Your task to perform on an android device: Toggle the flashlight Image 0: 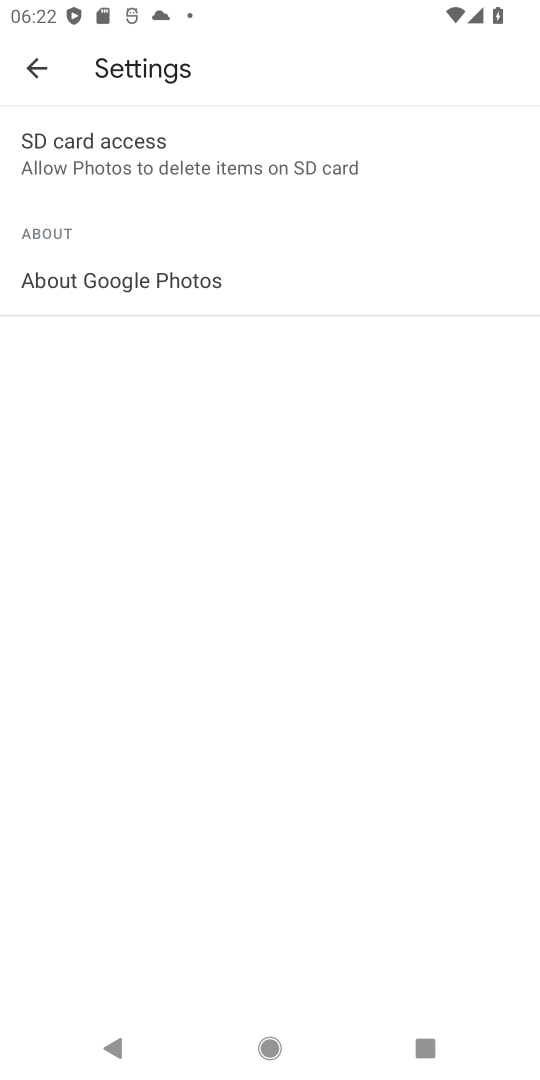
Step 0: press home button
Your task to perform on an android device: Toggle the flashlight Image 1: 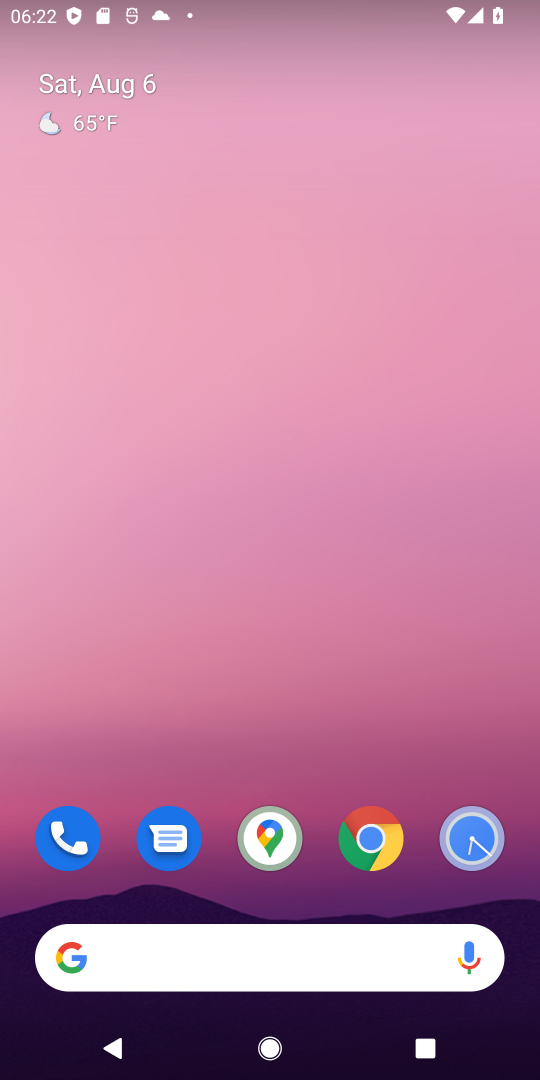
Step 1: drag from (351, 694) to (477, 34)
Your task to perform on an android device: Toggle the flashlight Image 2: 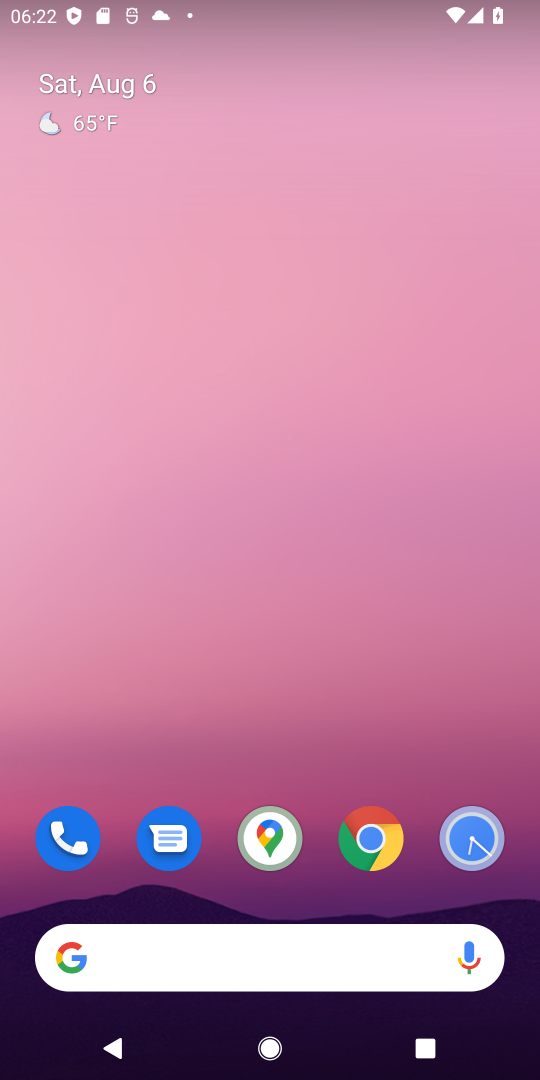
Step 2: drag from (274, 708) to (464, 1)
Your task to perform on an android device: Toggle the flashlight Image 3: 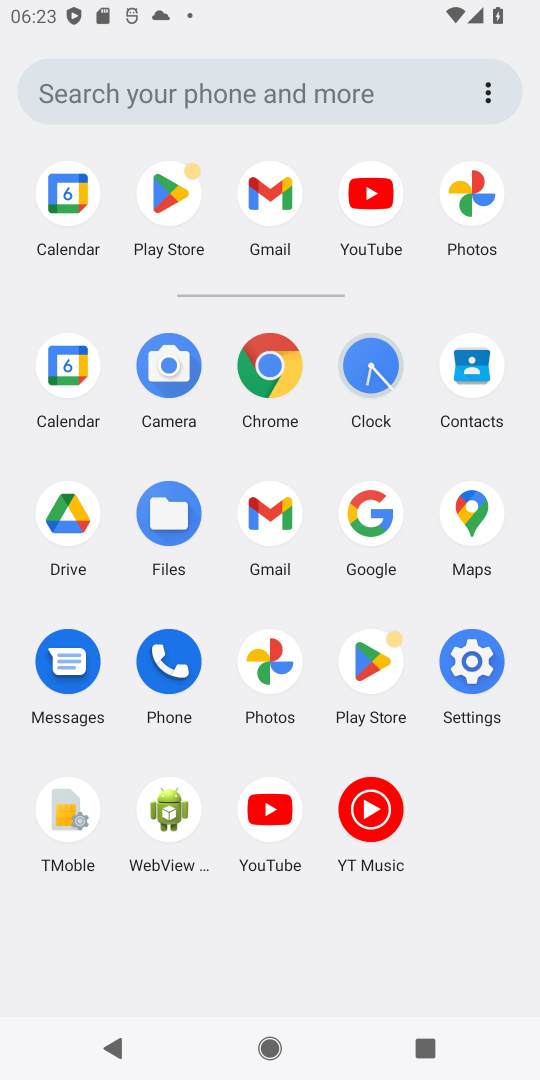
Step 3: click (493, 659)
Your task to perform on an android device: Toggle the flashlight Image 4: 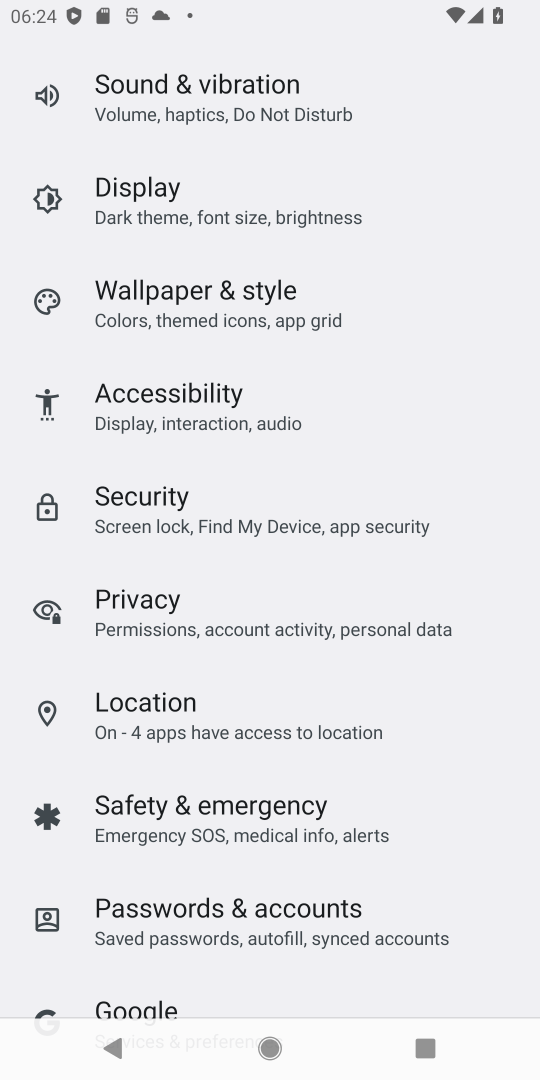
Step 4: task complete